Your task to perform on an android device: change the clock style Image 0: 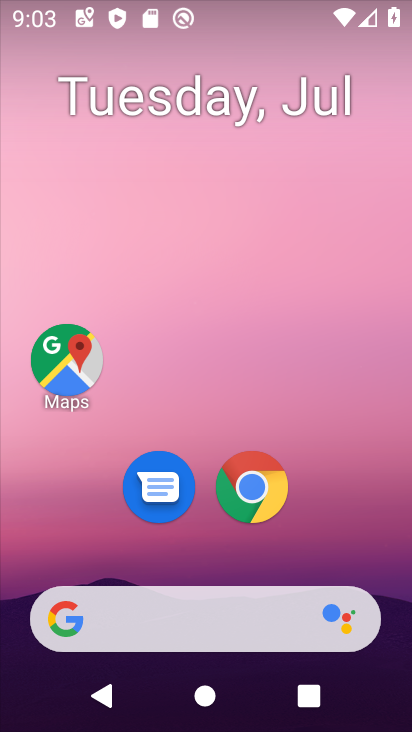
Step 0: drag from (168, 562) to (292, 0)
Your task to perform on an android device: change the clock style Image 1: 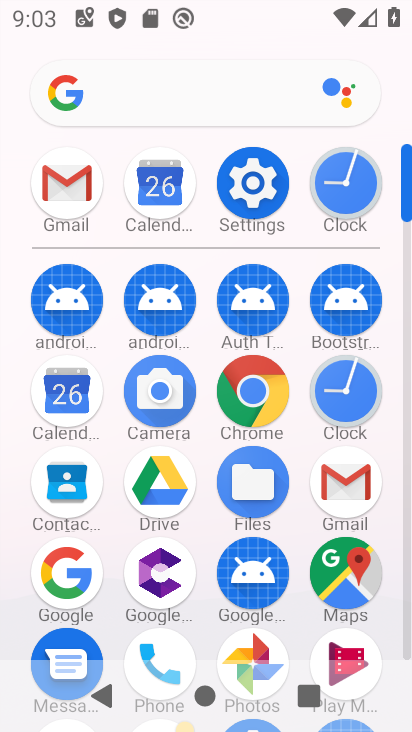
Step 1: click (344, 377)
Your task to perform on an android device: change the clock style Image 2: 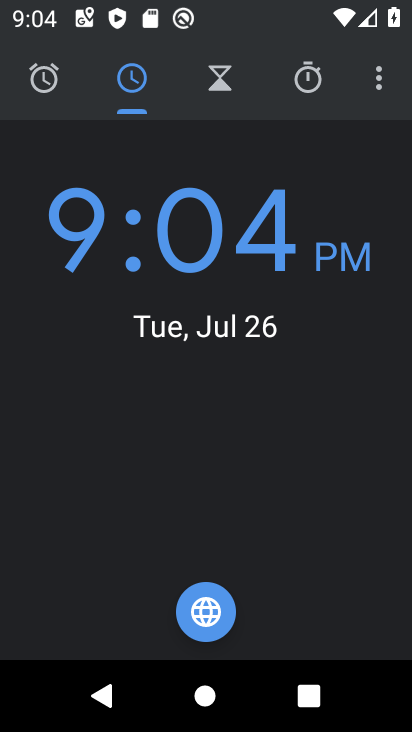
Step 2: click (378, 68)
Your task to perform on an android device: change the clock style Image 3: 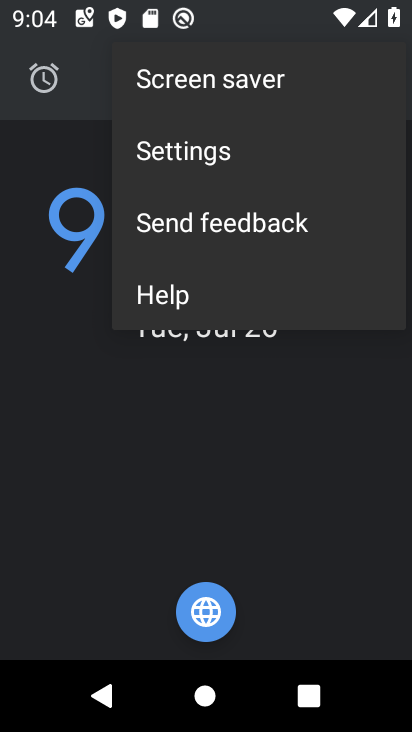
Step 3: click (211, 144)
Your task to perform on an android device: change the clock style Image 4: 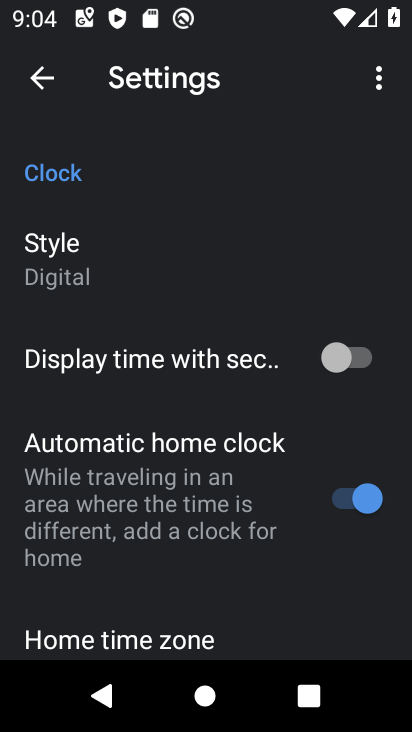
Step 4: click (97, 259)
Your task to perform on an android device: change the clock style Image 5: 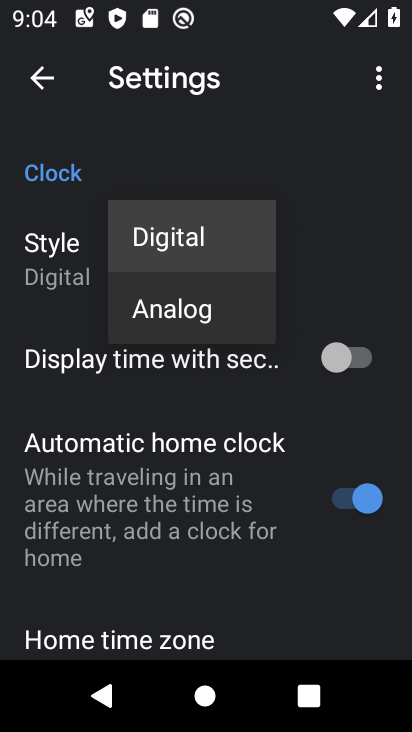
Step 5: click (170, 323)
Your task to perform on an android device: change the clock style Image 6: 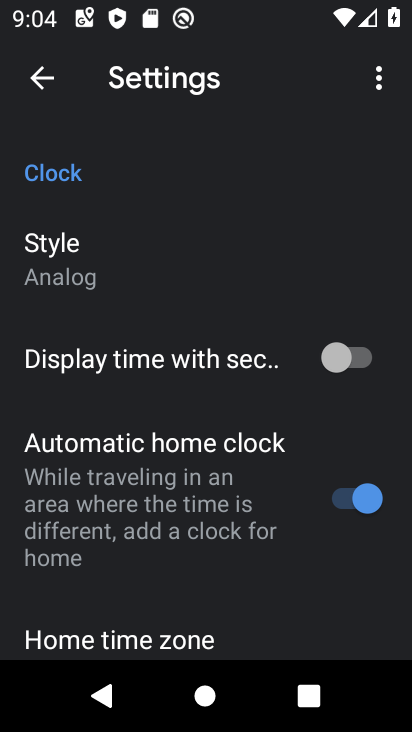
Step 6: task complete